Your task to perform on an android device: delete a single message in the gmail app Image 0: 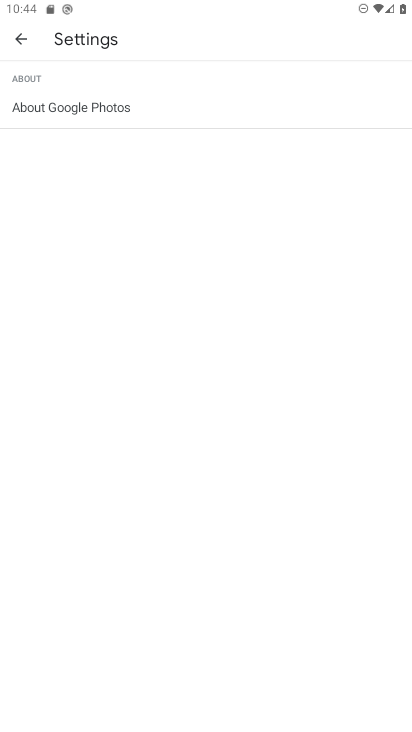
Step 0: press home button
Your task to perform on an android device: delete a single message in the gmail app Image 1: 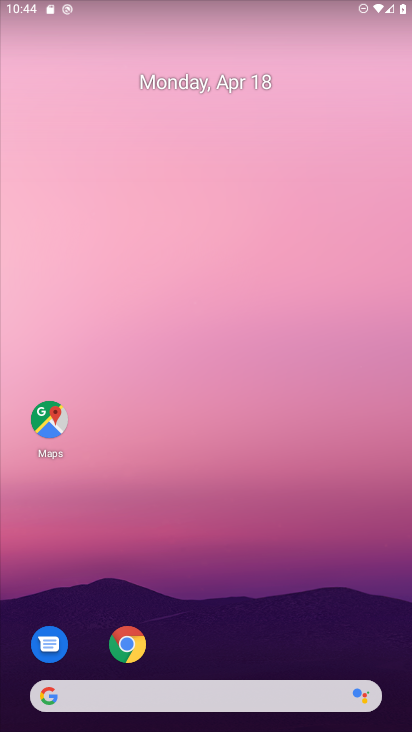
Step 1: drag from (203, 614) to (221, 109)
Your task to perform on an android device: delete a single message in the gmail app Image 2: 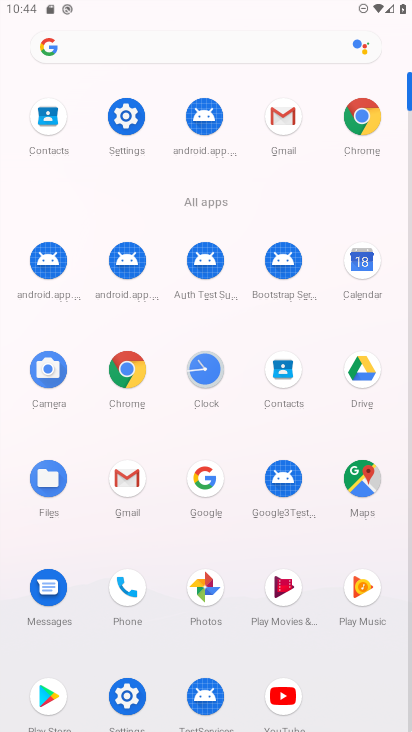
Step 2: click (291, 121)
Your task to perform on an android device: delete a single message in the gmail app Image 3: 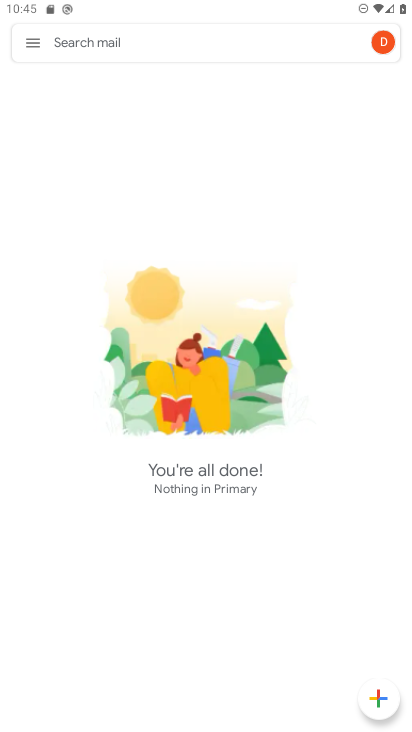
Step 3: task complete